Your task to perform on an android device: turn smart compose on in the gmail app Image 0: 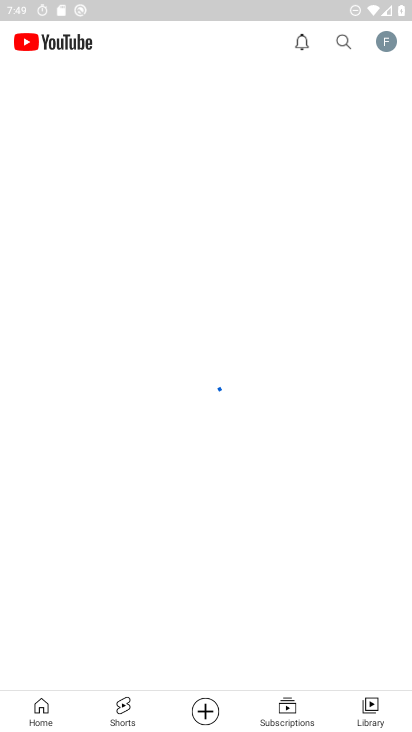
Step 0: press home button
Your task to perform on an android device: turn smart compose on in the gmail app Image 1: 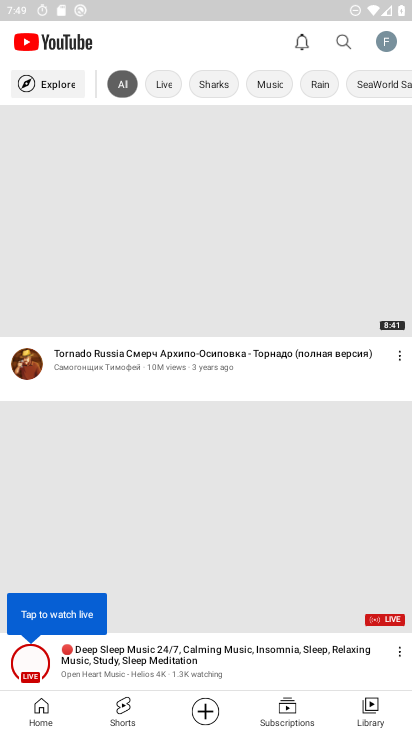
Step 1: drag from (371, 668) to (229, 88)
Your task to perform on an android device: turn smart compose on in the gmail app Image 2: 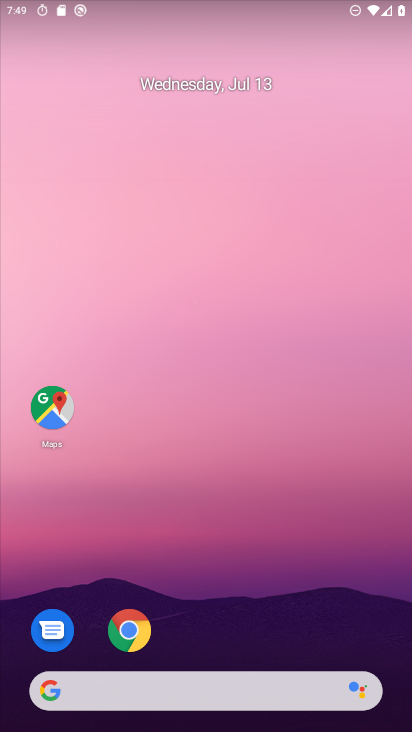
Step 2: drag from (326, 617) to (166, 62)
Your task to perform on an android device: turn smart compose on in the gmail app Image 3: 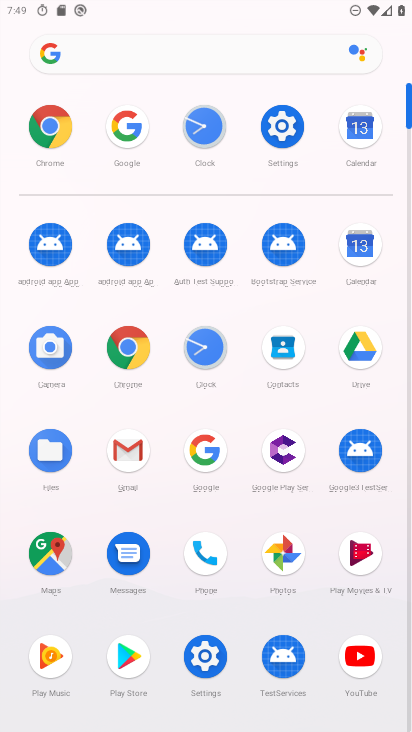
Step 3: click (135, 449)
Your task to perform on an android device: turn smart compose on in the gmail app Image 4: 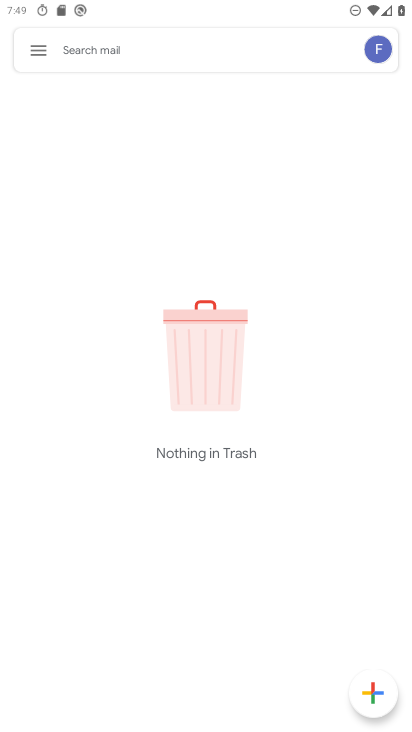
Step 4: click (34, 51)
Your task to perform on an android device: turn smart compose on in the gmail app Image 5: 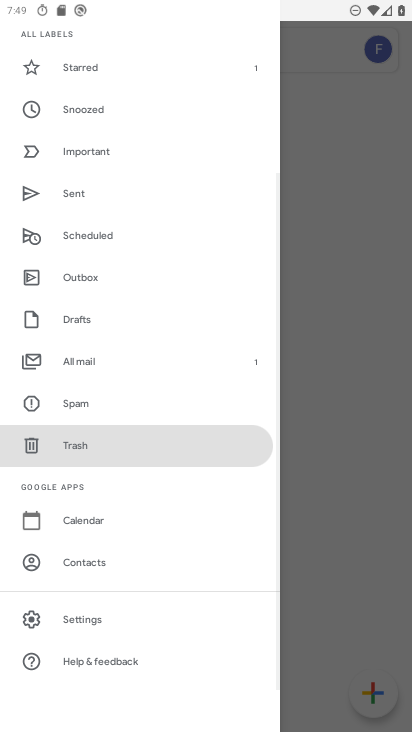
Step 5: click (79, 607)
Your task to perform on an android device: turn smart compose on in the gmail app Image 6: 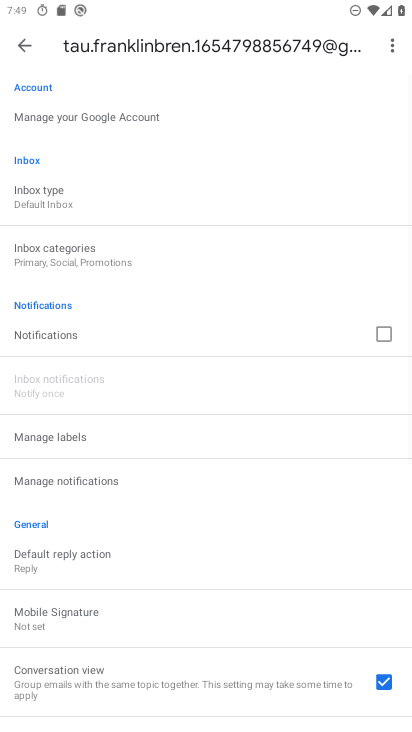
Step 6: task complete